Your task to perform on an android device: Go to Android settings Image 0: 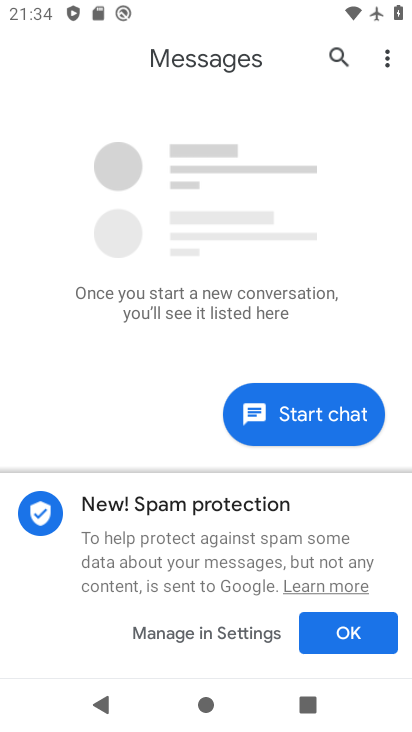
Step 0: press home button
Your task to perform on an android device: Go to Android settings Image 1: 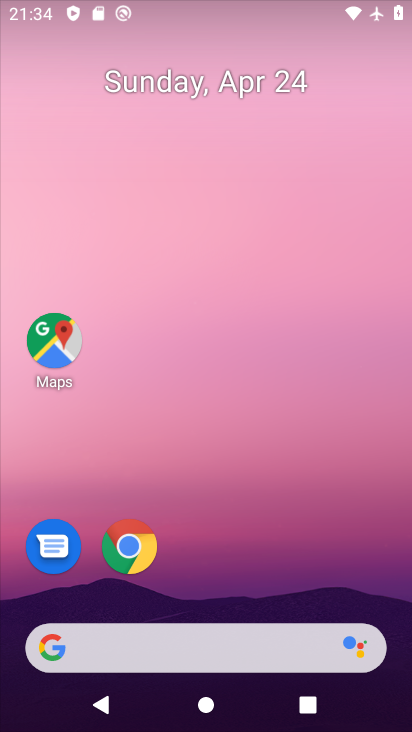
Step 1: drag from (200, 574) to (270, 190)
Your task to perform on an android device: Go to Android settings Image 2: 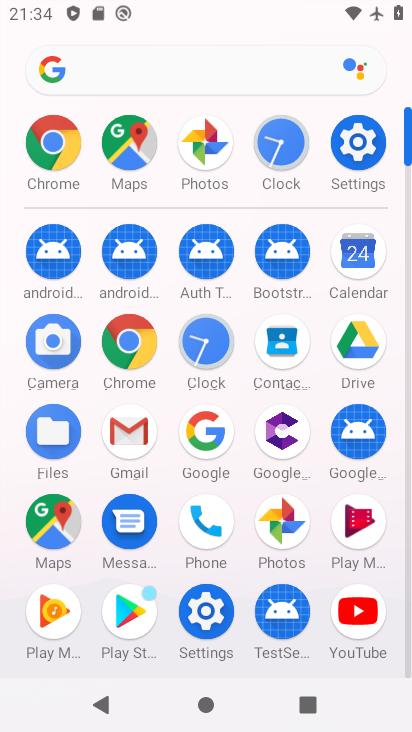
Step 2: click (360, 138)
Your task to perform on an android device: Go to Android settings Image 3: 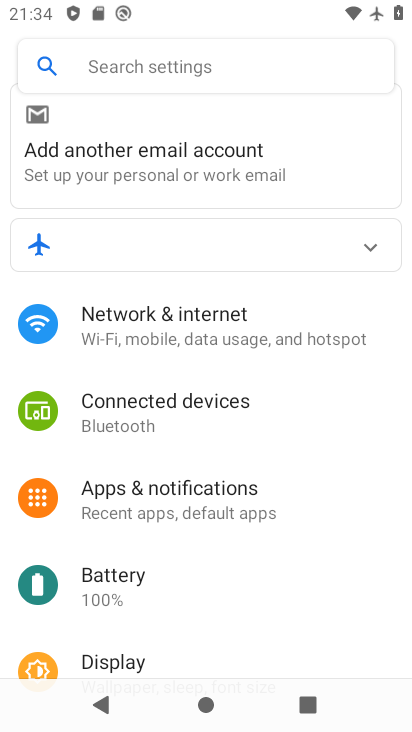
Step 3: drag from (184, 624) to (259, 235)
Your task to perform on an android device: Go to Android settings Image 4: 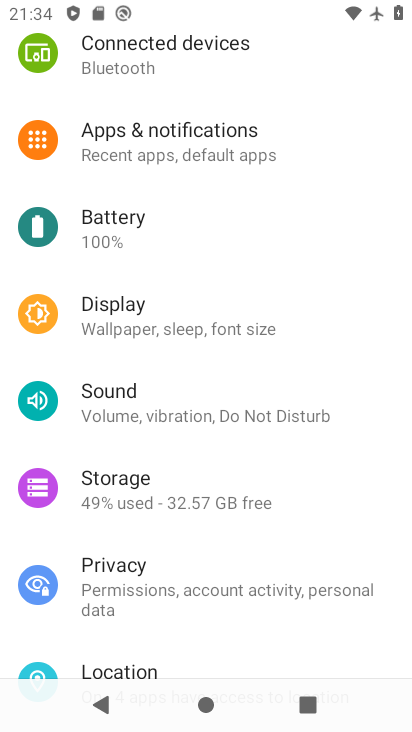
Step 4: drag from (165, 645) to (291, 212)
Your task to perform on an android device: Go to Android settings Image 5: 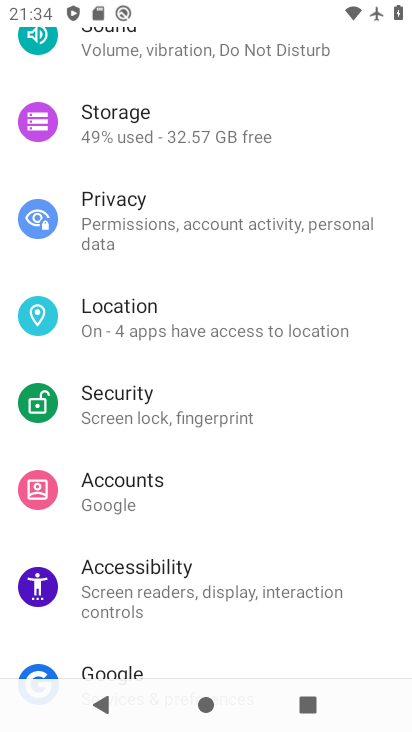
Step 5: drag from (255, 598) to (303, 290)
Your task to perform on an android device: Go to Android settings Image 6: 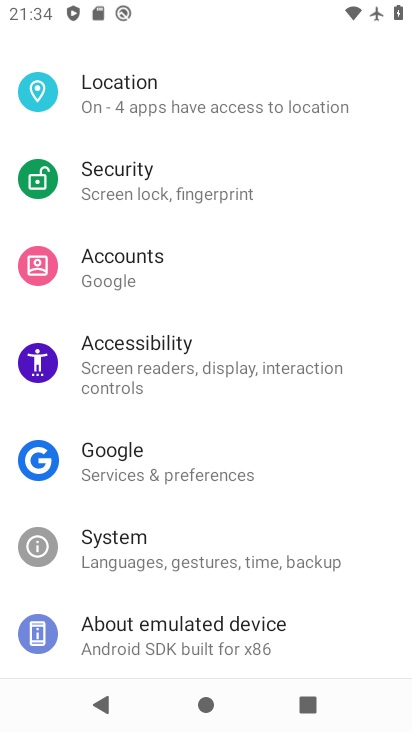
Step 6: click (172, 628)
Your task to perform on an android device: Go to Android settings Image 7: 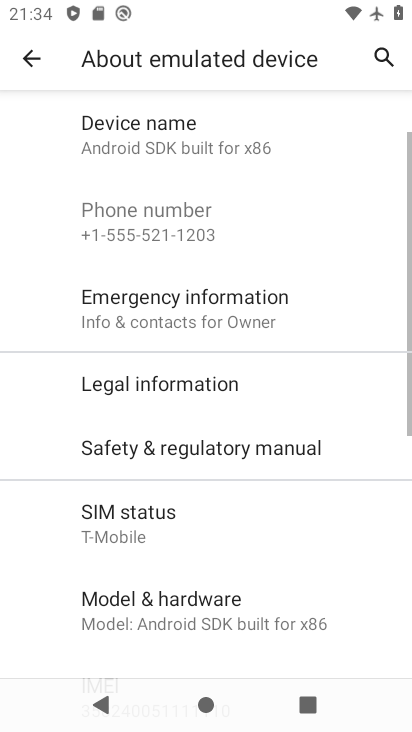
Step 7: drag from (217, 523) to (294, 150)
Your task to perform on an android device: Go to Android settings Image 8: 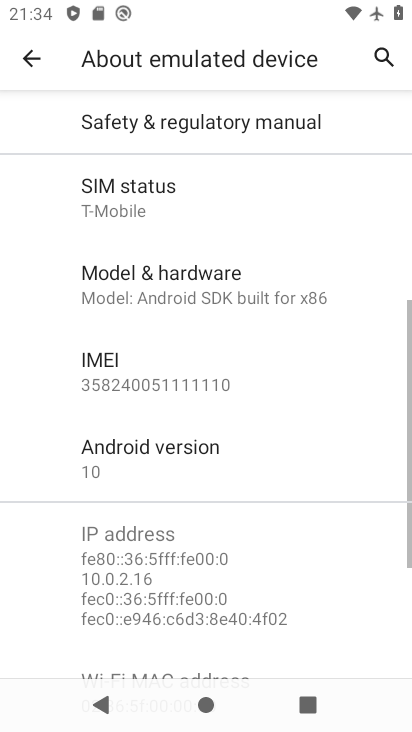
Step 8: drag from (181, 463) to (266, 148)
Your task to perform on an android device: Go to Android settings Image 9: 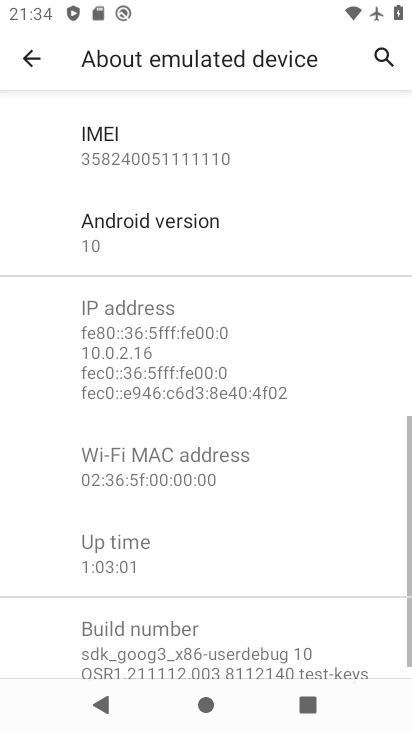
Step 9: click (133, 239)
Your task to perform on an android device: Go to Android settings Image 10: 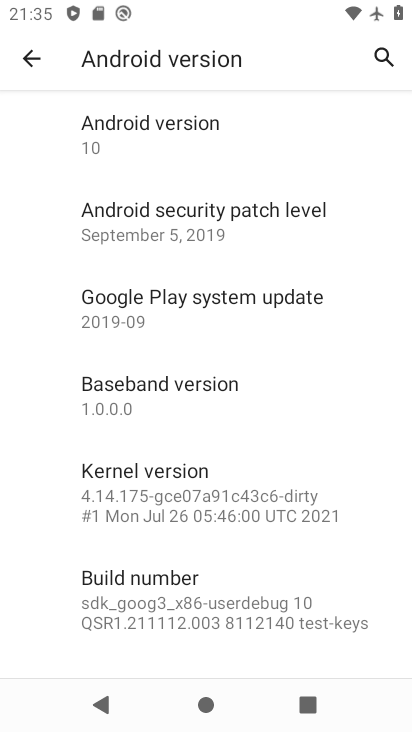
Step 10: drag from (211, 619) to (296, 161)
Your task to perform on an android device: Go to Android settings Image 11: 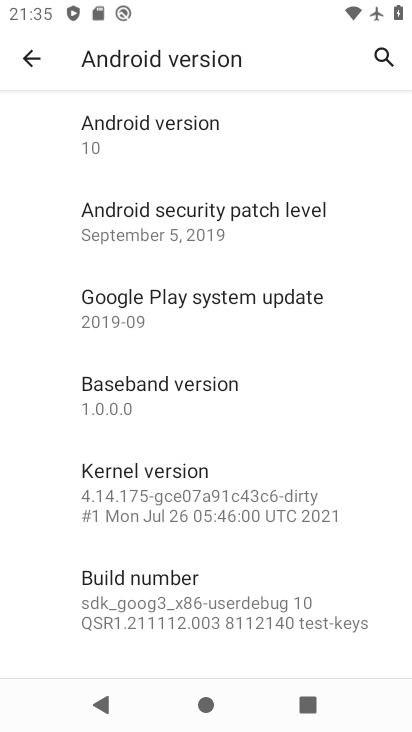
Step 11: click (21, 56)
Your task to perform on an android device: Go to Android settings Image 12: 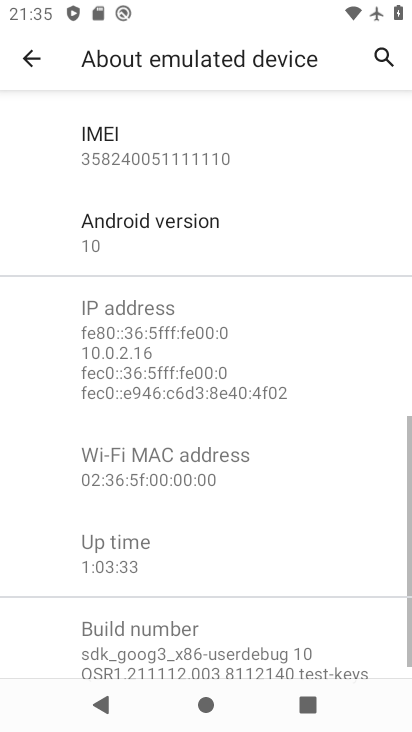
Step 12: click (39, 58)
Your task to perform on an android device: Go to Android settings Image 13: 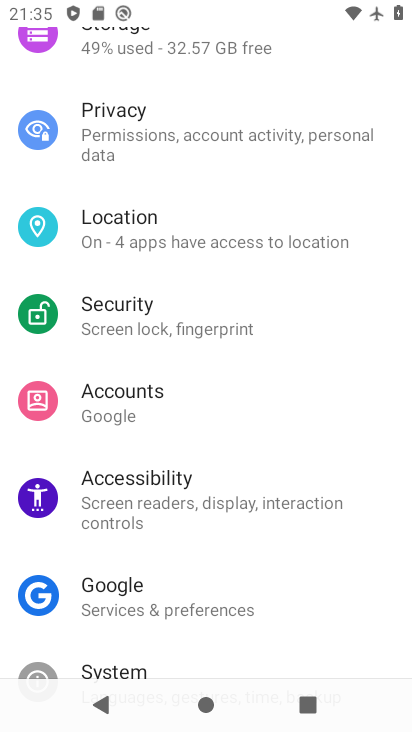
Step 13: task complete